Your task to perform on an android device: clear history in the chrome app Image 0: 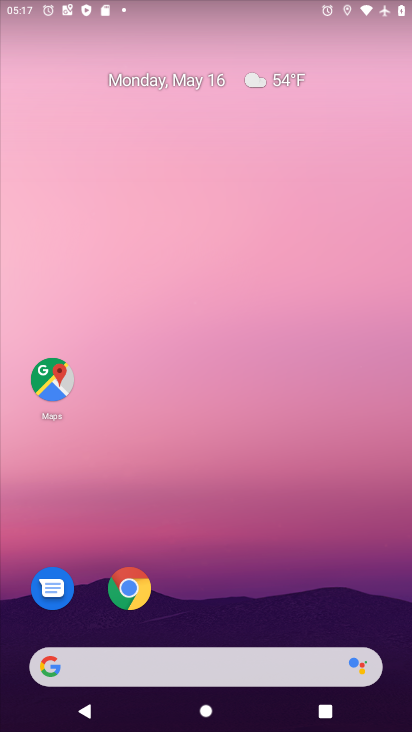
Step 0: drag from (185, 477) to (187, 8)
Your task to perform on an android device: clear history in the chrome app Image 1: 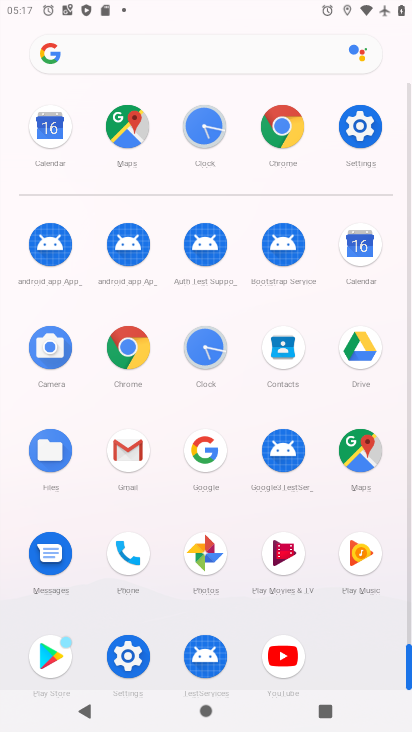
Step 1: drag from (10, 489) to (29, 124)
Your task to perform on an android device: clear history in the chrome app Image 2: 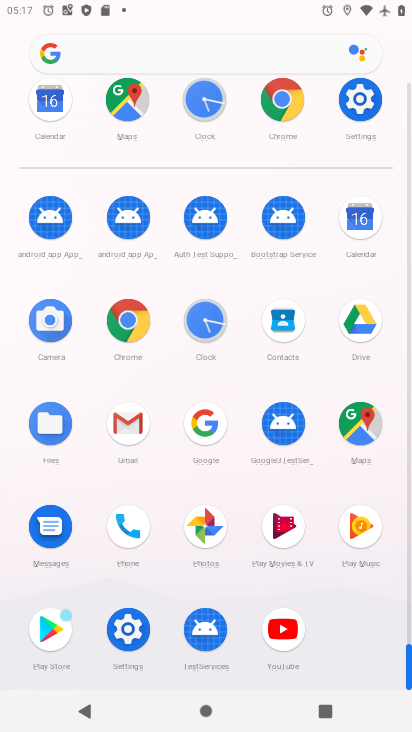
Step 2: drag from (34, 461) to (22, 210)
Your task to perform on an android device: clear history in the chrome app Image 3: 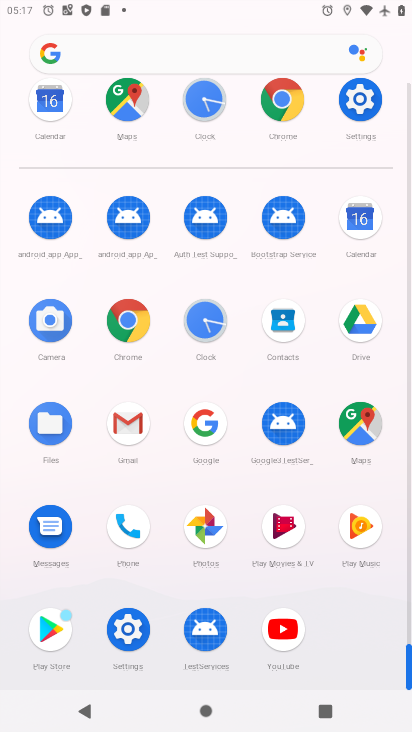
Step 3: click (136, 316)
Your task to perform on an android device: clear history in the chrome app Image 4: 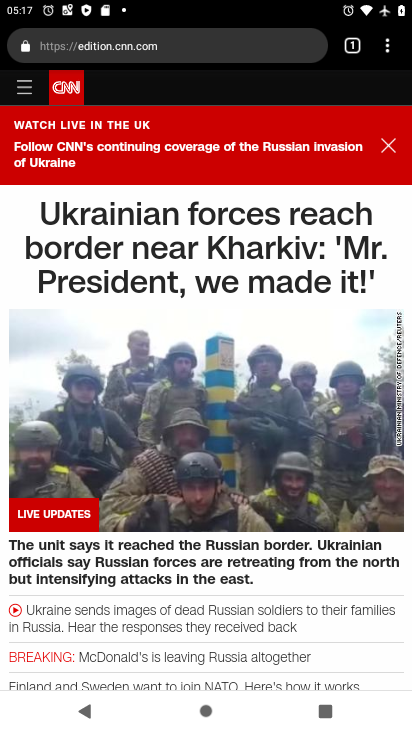
Step 4: task complete